Your task to perform on an android device: turn on sleep mode Image 0: 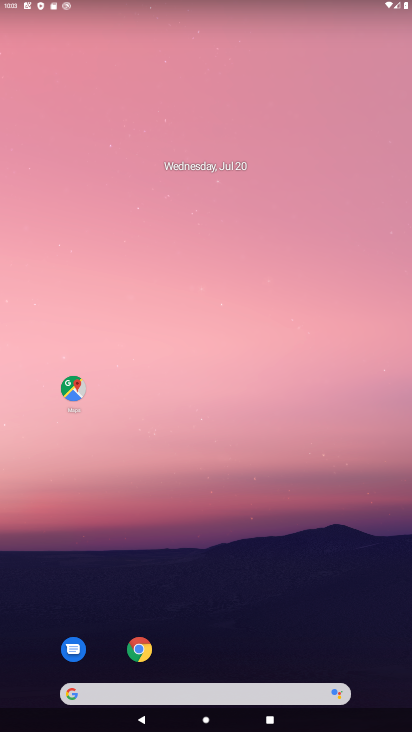
Step 0: drag from (265, 643) to (257, 39)
Your task to perform on an android device: turn on sleep mode Image 1: 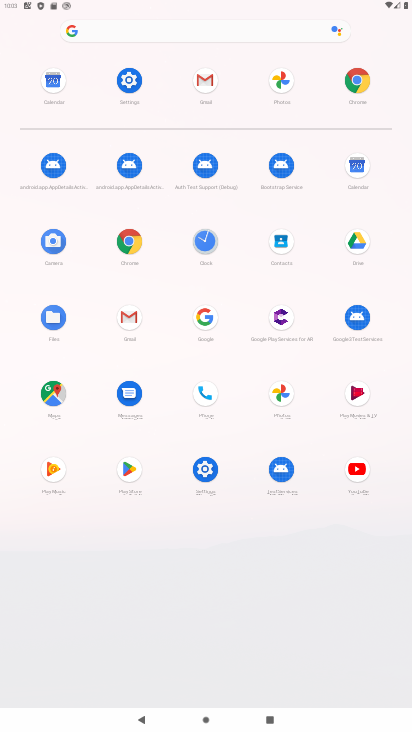
Step 1: task complete